Your task to perform on an android device: move a message to another label in the gmail app Image 0: 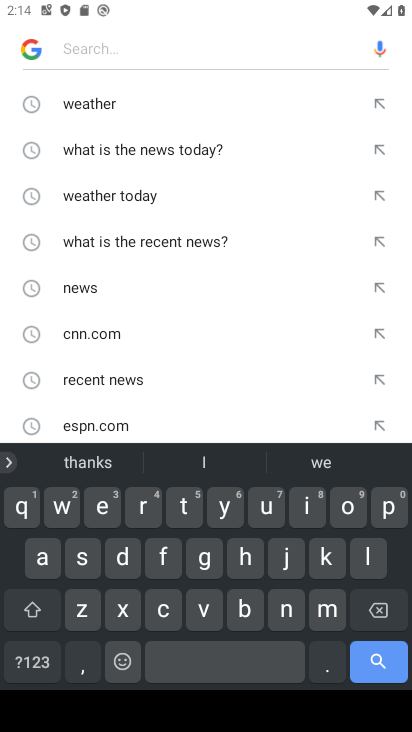
Step 0: press home button
Your task to perform on an android device: move a message to another label in the gmail app Image 1: 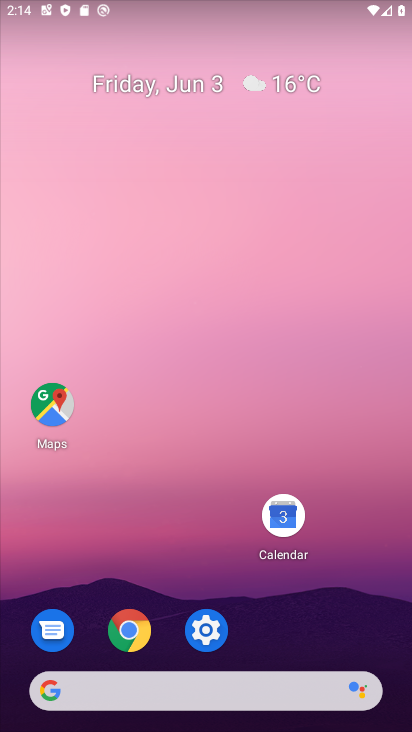
Step 1: drag from (297, 712) to (247, 152)
Your task to perform on an android device: move a message to another label in the gmail app Image 2: 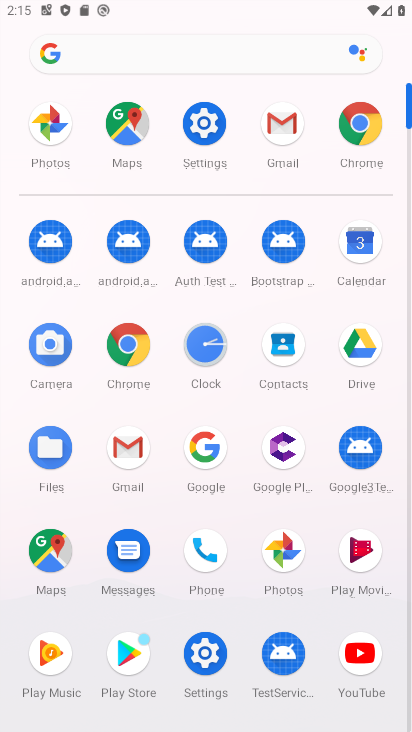
Step 2: click (272, 134)
Your task to perform on an android device: move a message to another label in the gmail app Image 3: 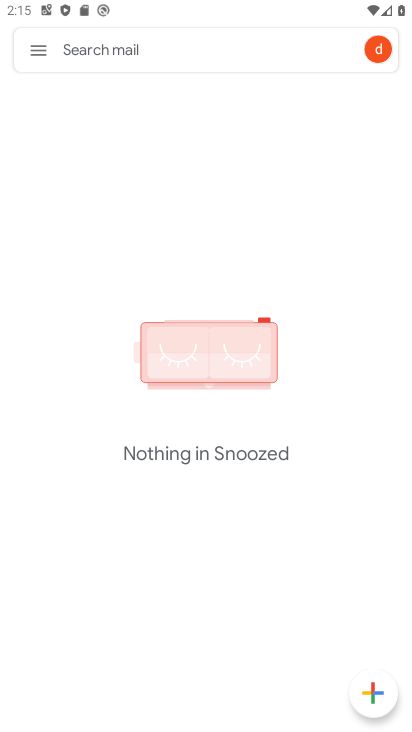
Step 3: click (31, 66)
Your task to perform on an android device: move a message to another label in the gmail app Image 4: 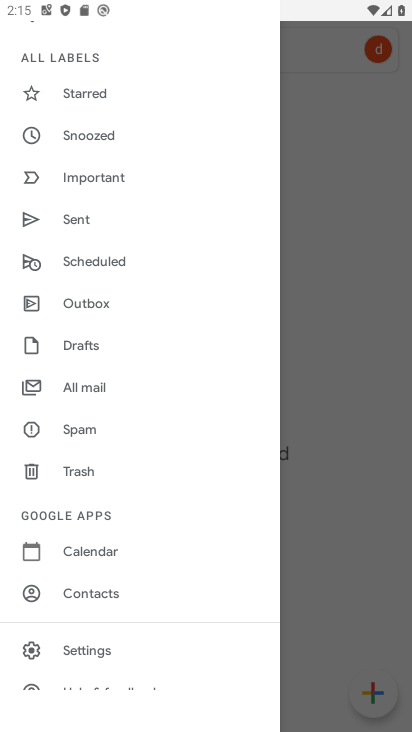
Step 4: drag from (113, 613) to (115, 443)
Your task to perform on an android device: move a message to another label in the gmail app Image 5: 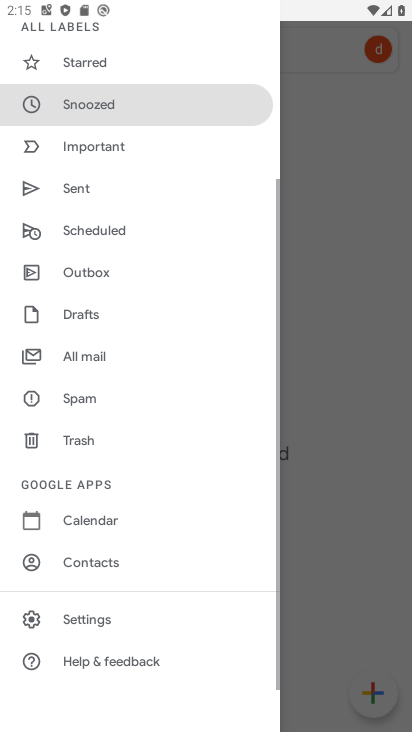
Step 5: click (68, 605)
Your task to perform on an android device: move a message to another label in the gmail app Image 6: 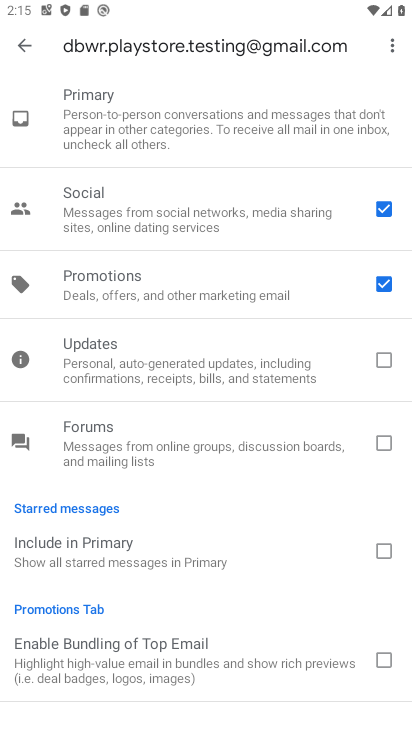
Step 6: click (25, 53)
Your task to perform on an android device: move a message to another label in the gmail app Image 7: 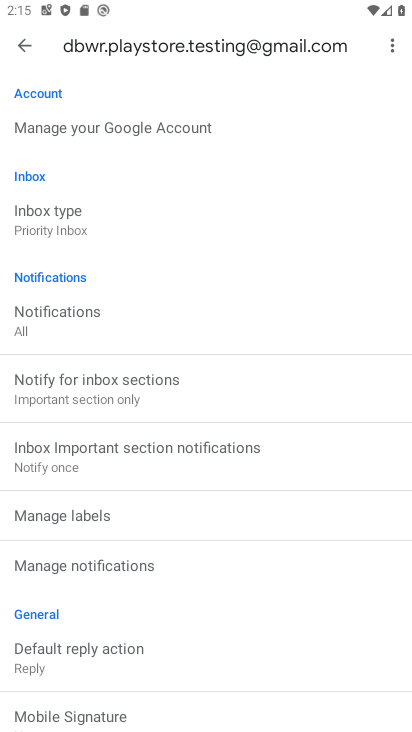
Step 7: click (111, 515)
Your task to perform on an android device: move a message to another label in the gmail app Image 8: 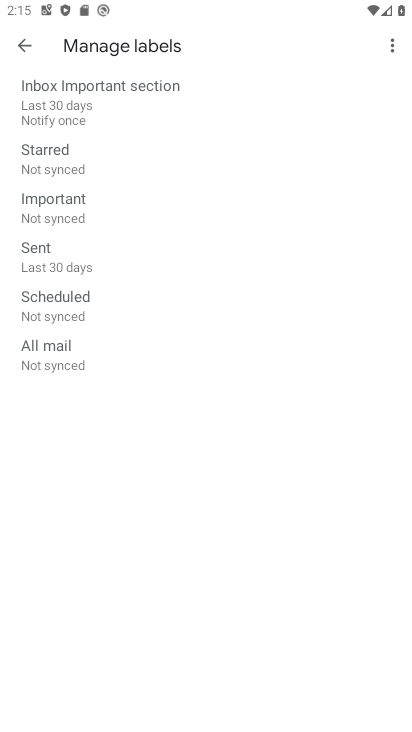
Step 8: click (73, 198)
Your task to perform on an android device: move a message to another label in the gmail app Image 9: 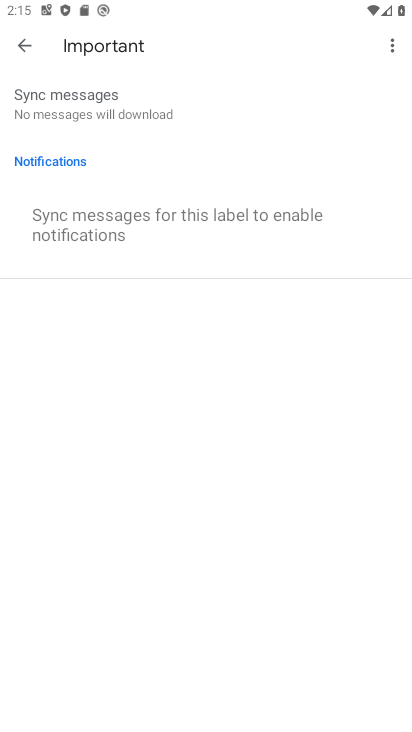
Step 9: task complete